Your task to perform on an android device: set an alarm Image 0: 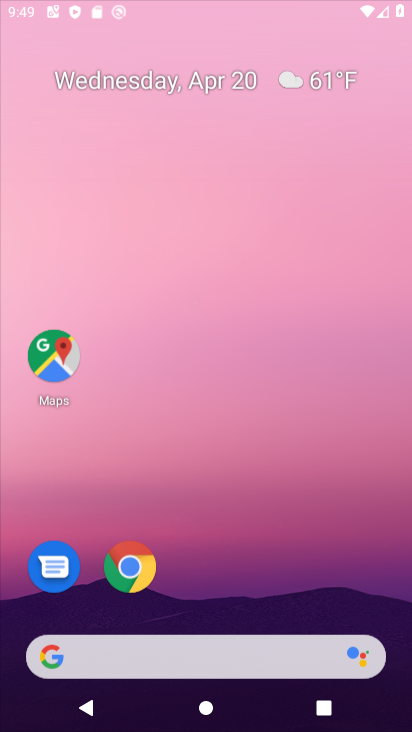
Step 0: click (314, 99)
Your task to perform on an android device: set an alarm Image 1: 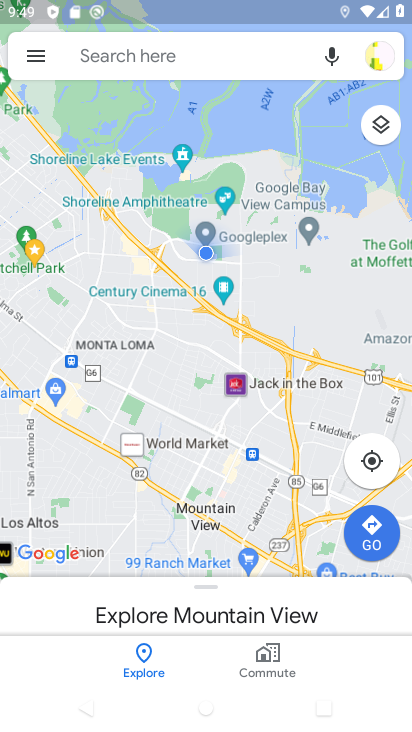
Step 1: press back button
Your task to perform on an android device: set an alarm Image 2: 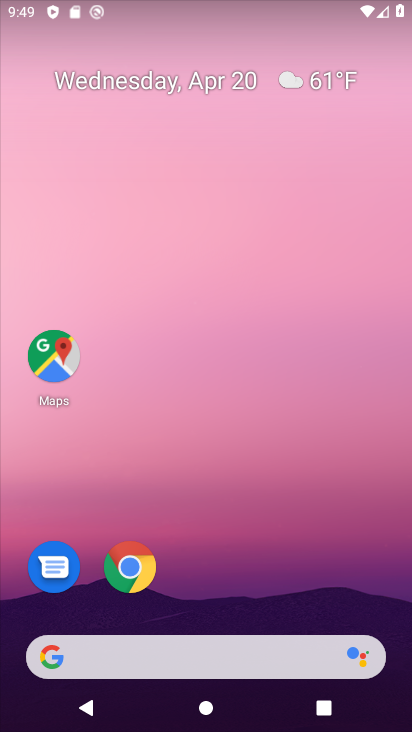
Step 2: drag from (238, 552) to (300, 52)
Your task to perform on an android device: set an alarm Image 3: 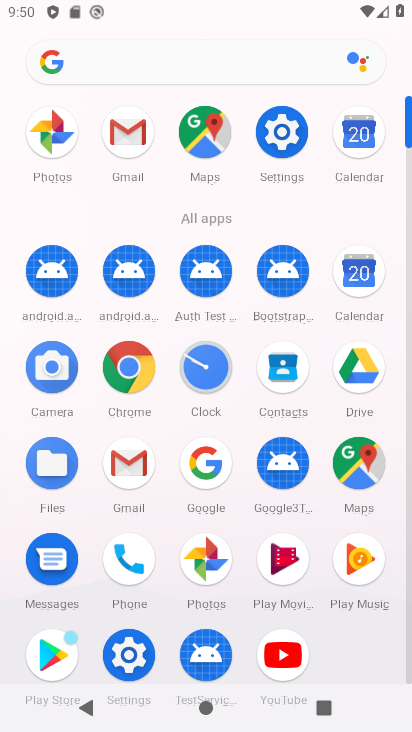
Step 3: click (201, 367)
Your task to perform on an android device: set an alarm Image 4: 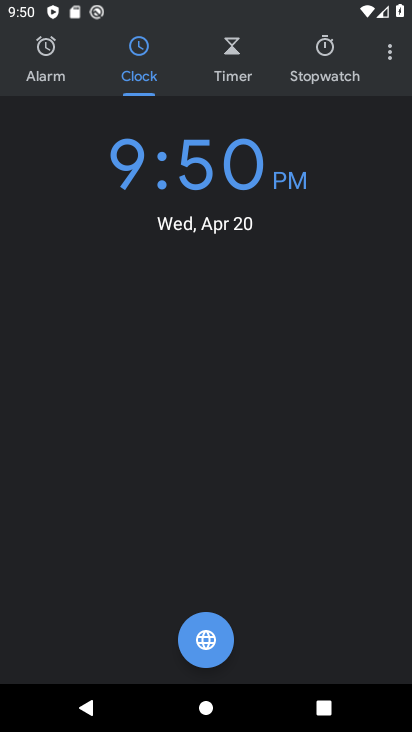
Step 4: click (49, 52)
Your task to perform on an android device: set an alarm Image 5: 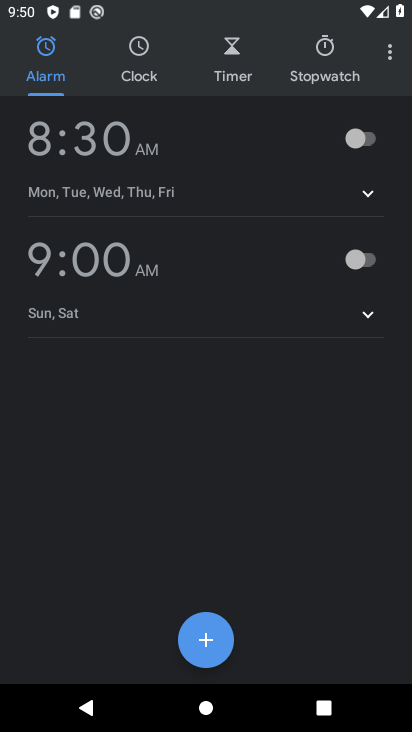
Step 5: click (345, 135)
Your task to perform on an android device: set an alarm Image 6: 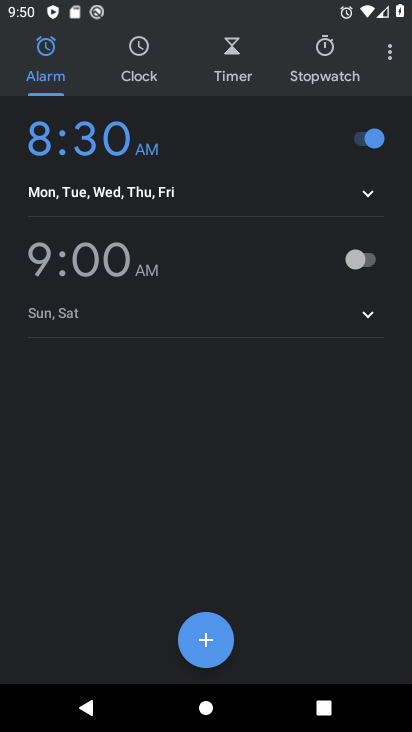
Step 6: task complete